Your task to perform on an android device: open sync settings in chrome Image 0: 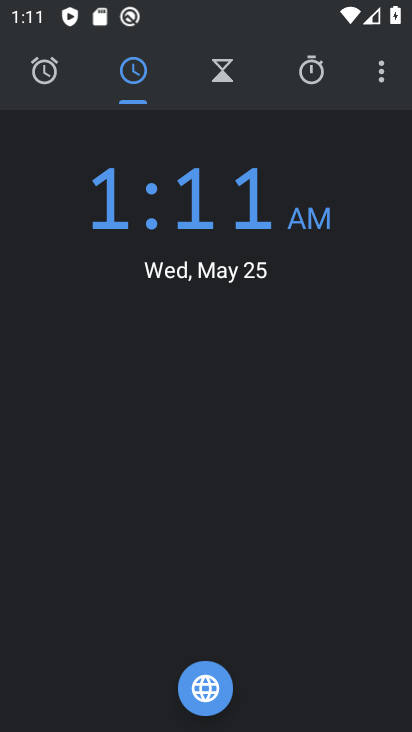
Step 0: press home button
Your task to perform on an android device: open sync settings in chrome Image 1: 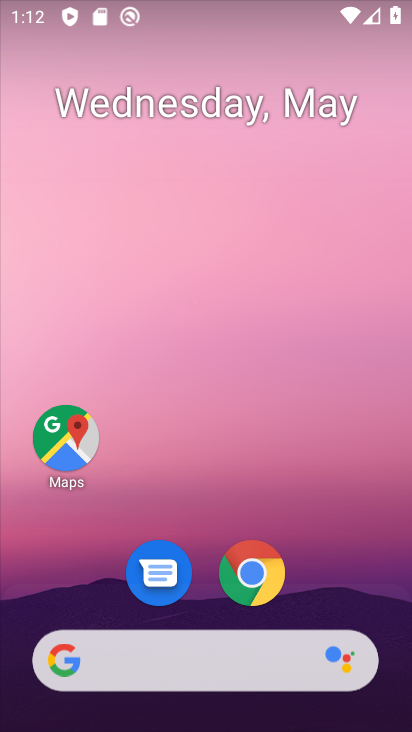
Step 1: click (267, 560)
Your task to perform on an android device: open sync settings in chrome Image 2: 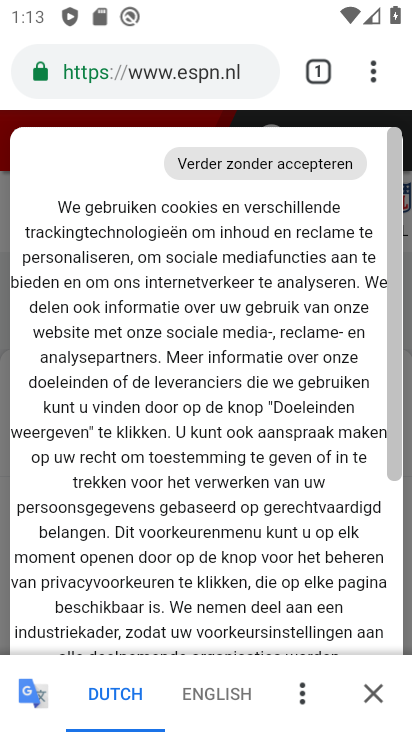
Step 2: click (387, 68)
Your task to perform on an android device: open sync settings in chrome Image 3: 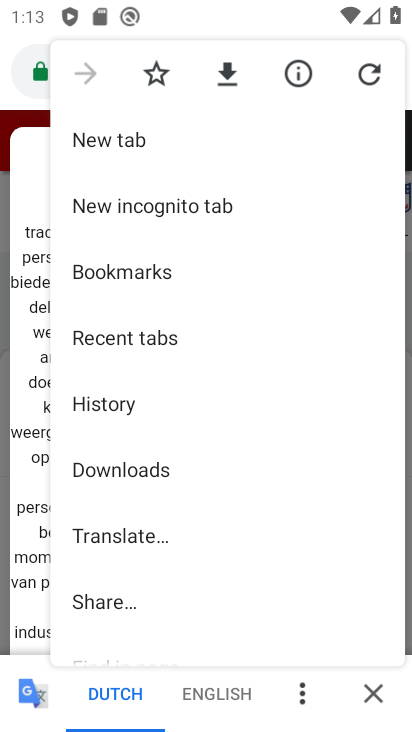
Step 3: drag from (173, 612) to (188, 271)
Your task to perform on an android device: open sync settings in chrome Image 4: 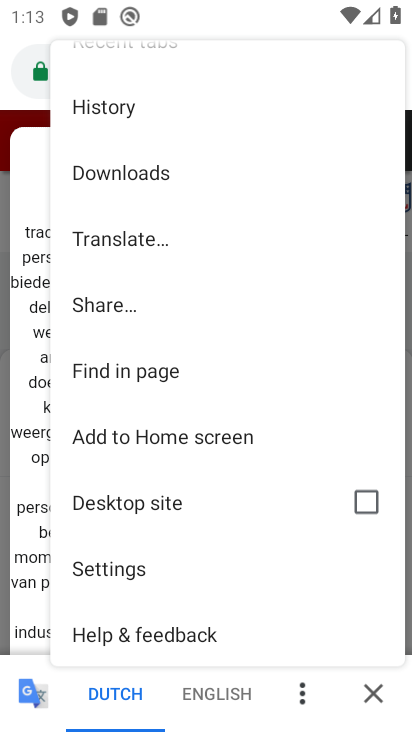
Step 4: click (127, 577)
Your task to perform on an android device: open sync settings in chrome Image 5: 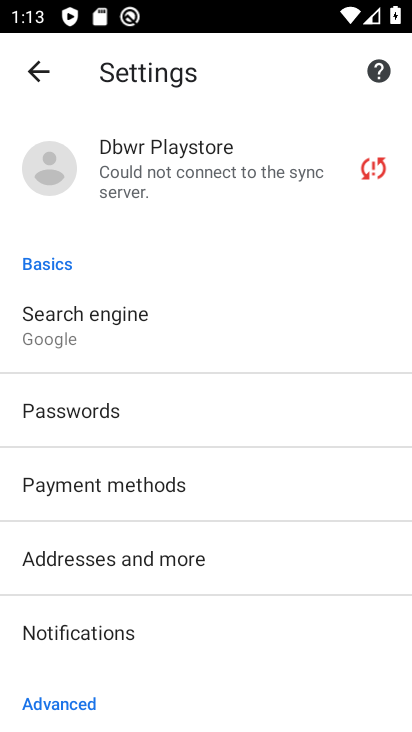
Step 5: click (174, 182)
Your task to perform on an android device: open sync settings in chrome Image 6: 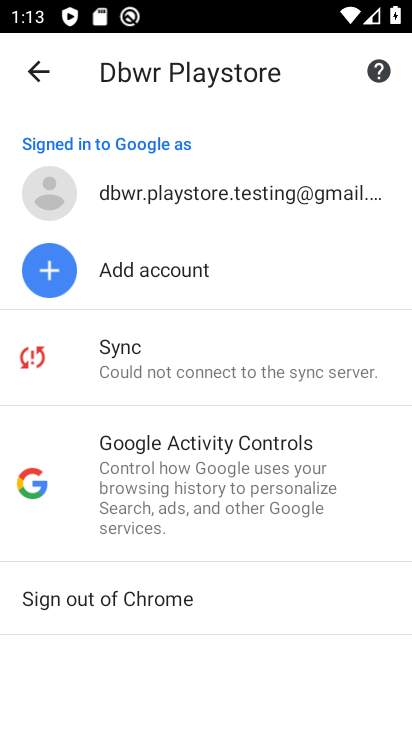
Step 6: click (167, 367)
Your task to perform on an android device: open sync settings in chrome Image 7: 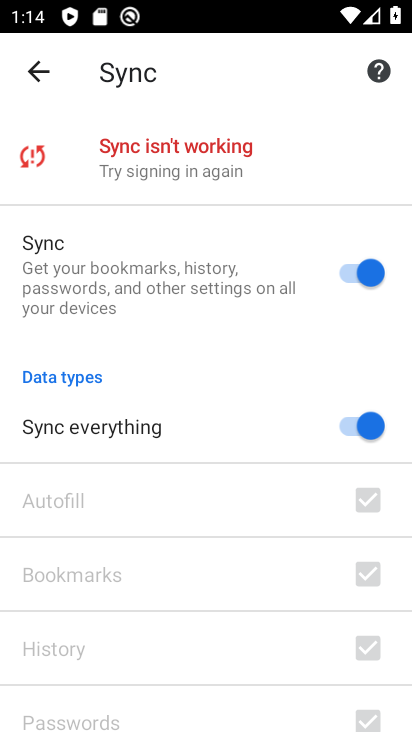
Step 7: task complete